Your task to perform on an android device: Add macbook pro to the cart on walmart Image 0: 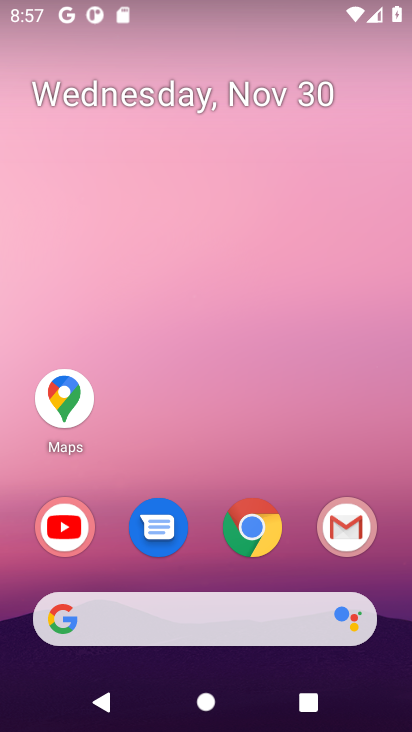
Step 0: click (253, 517)
Your task to perform on an android device: Add macbook pro to the cart on walmart Image 1: 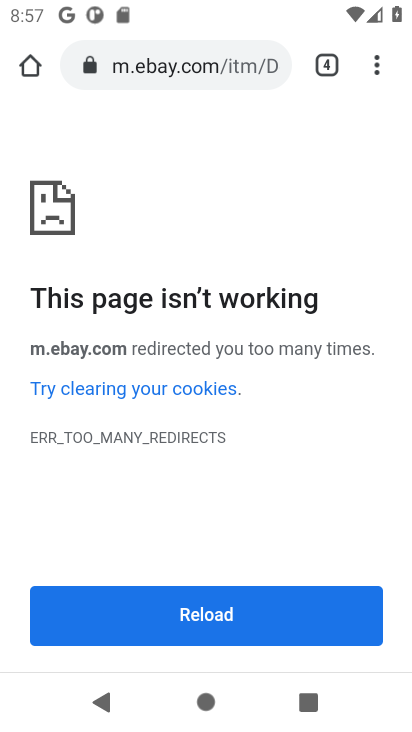
Step 1: click (212, 62)
Your task to perform on an android device: Add macbook pro to the cart on walmart Image 2: 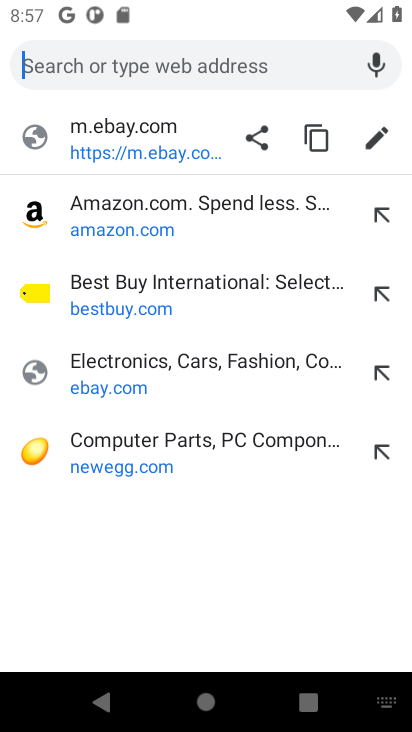
Step 2: type "walmart"
Your task to perform on an android device: Add macbook pro to the cart on walmart Image 3: 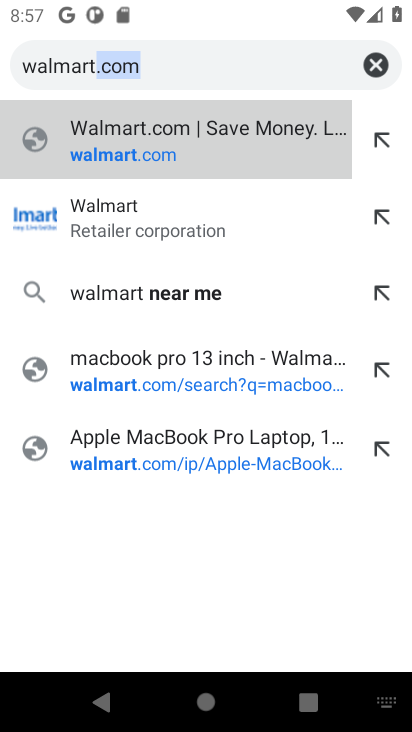
Step 3: press enter
Your task to perform on an android device: Add macbook pro to the cart on walmart Image 4: 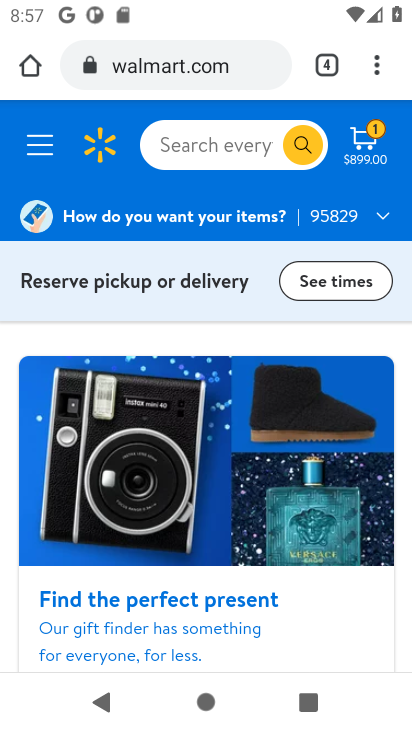
Step 4: click (219, 148)
Your task to perform on an android device: Add macbook pro to the cart on walmart Image 5: 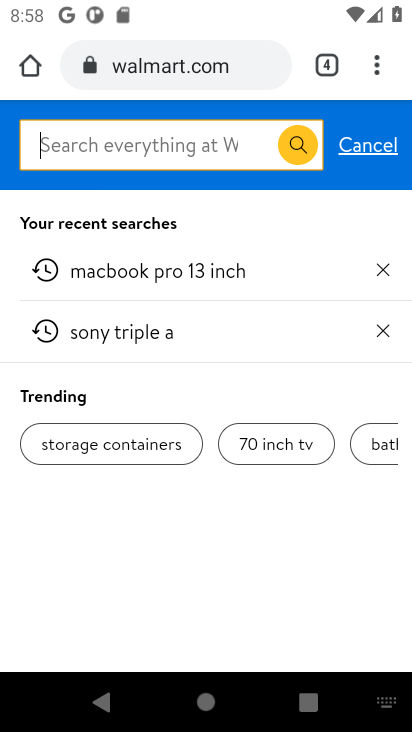
Step 5: type "macbook pro"
Your task to perform on an android device: Add macbook pro to the cart on walmart Image 6: 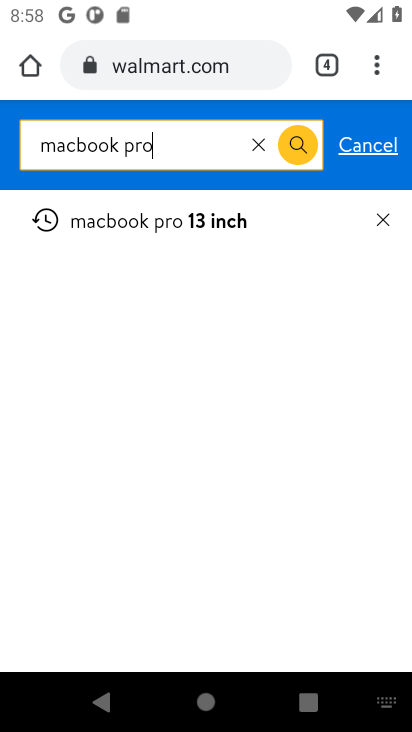
Step 6: press enter
Your task to perform on an android device: Add macbook pro to the cart on walmart Image 7: 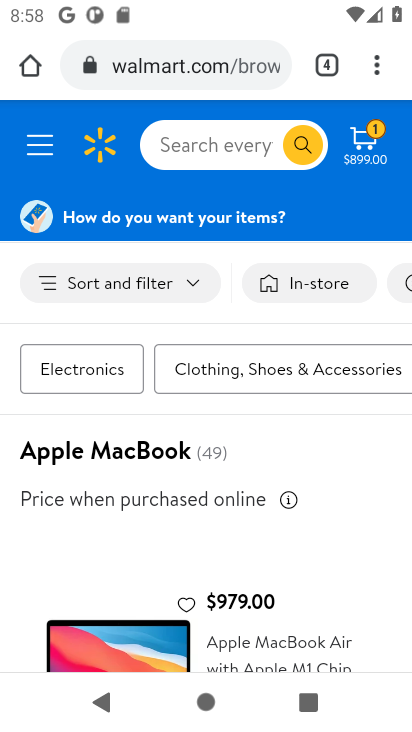
Step 7: drag from (360, 610) to (347, 277)
Your task to perform on an android device: Add macbook pro to the cart on walmart Image 8: 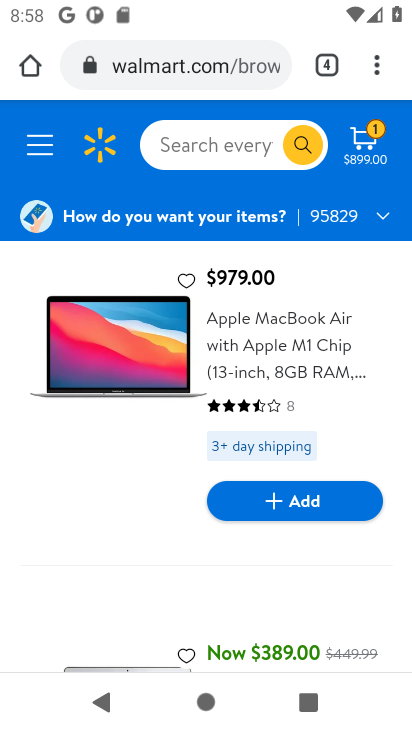
Step 8: drag from (359, 588) to (361, 220)
Your task to perform on an android device: Add macbook pro to the cart on walmart Image 9: 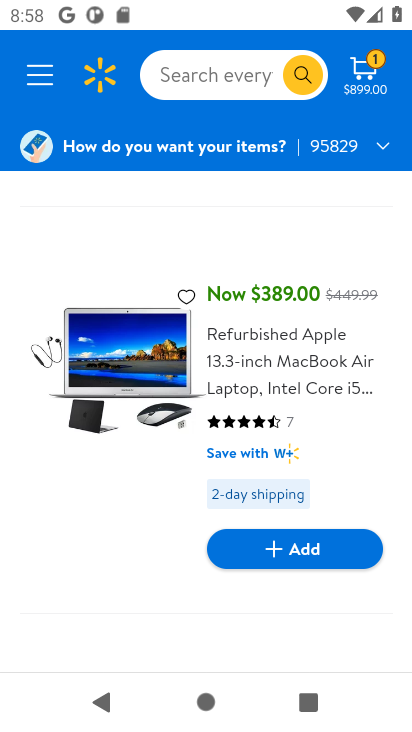
Step 9: drag from (370, 632) to (361, 180)
Your task to perform on an android device: Add macbook pro to the cart on walmart Image 10: 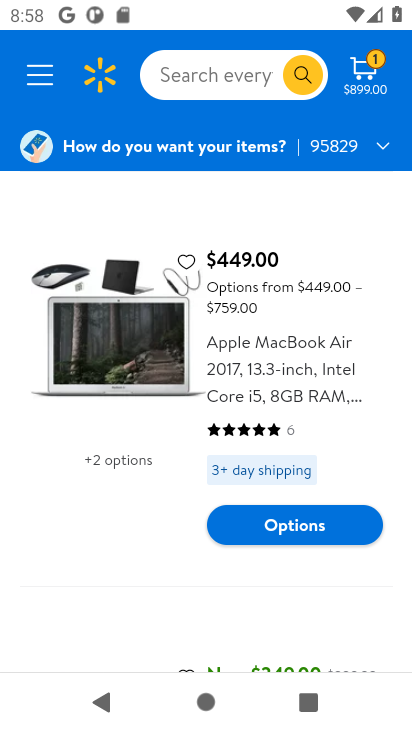
Step 10: drag from (366, 611) to (357, 345)
Your task to perform on an android device: Add macbook pro to the cart on walmart Image 11: 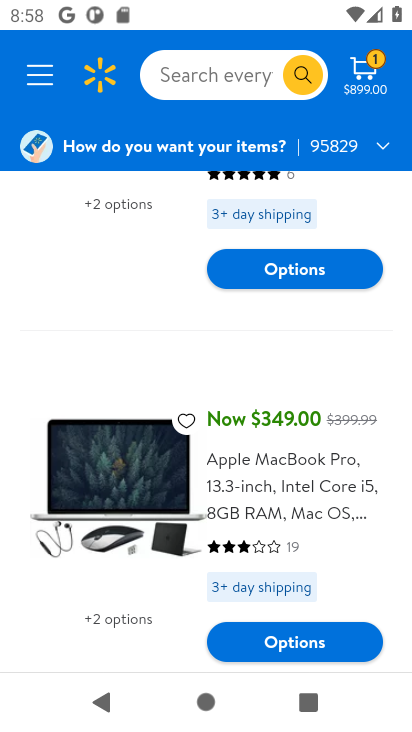
Step 11: click (368, 387)
Your task to perform on an android device: Add macbook pro to the cart on walmart Image 12: 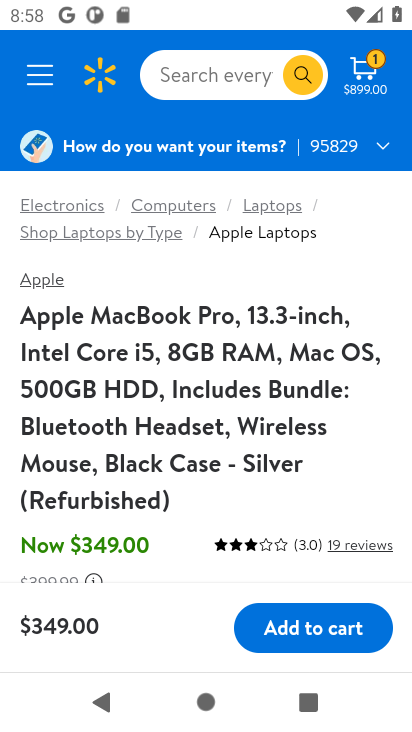
Step 12: drag from (335, 441) to (334, 85)
Your task to perform on an android device: Add macbook pro to the cart on walmart Image 13: 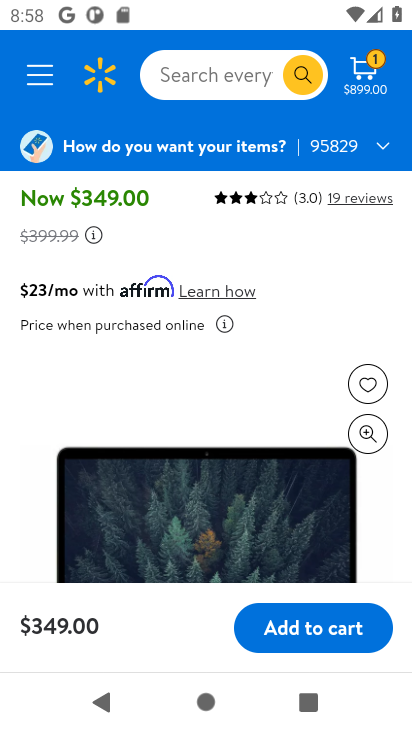
Step 13: drag from (282, 400) to (294, 116)
Your task to perform on an android device: Add macbook pro to the cart on walmart Image 14: 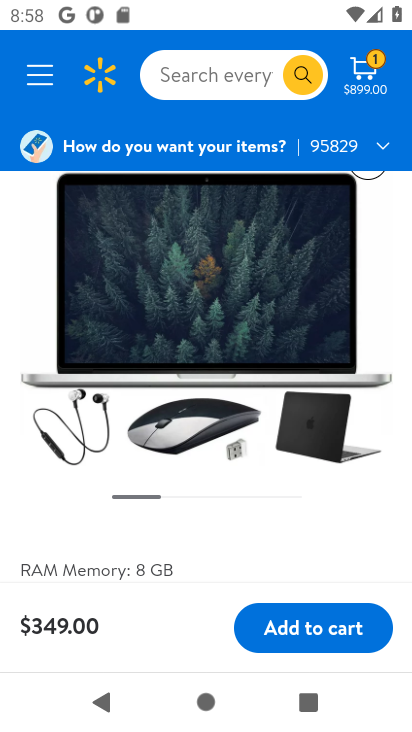
Step 14: click (351, 630)
Your task to perform on an android device: Add macbook pro to the cart on walmart Image 15: 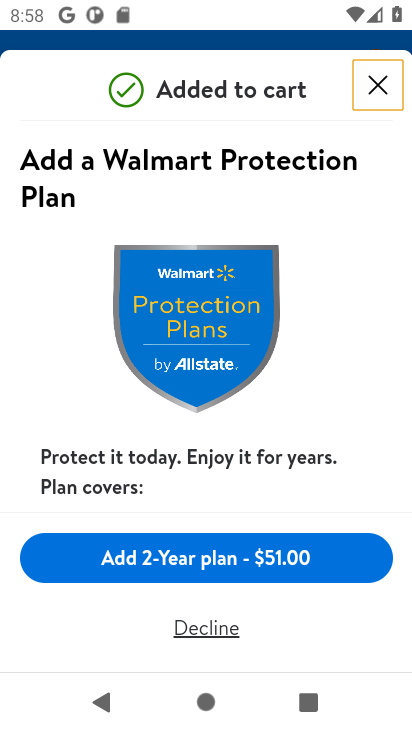
Step 15: click (381, 72)
Your task to perform on an android device: Add macbook pro to the cart on walmart Image 16: 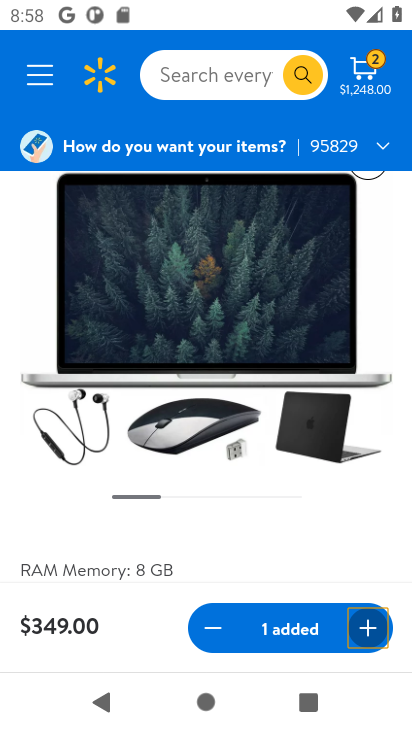
Step 16: task complete